Your task to perform on an android device: toggle show notifications on the lock screen Image 0: 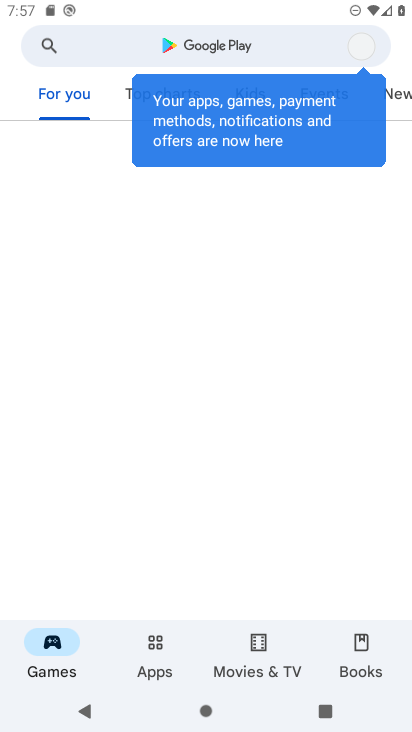
Step 0: press home button
Your task to perform on an android device: toggle show notifications on the lock screen Image 1: 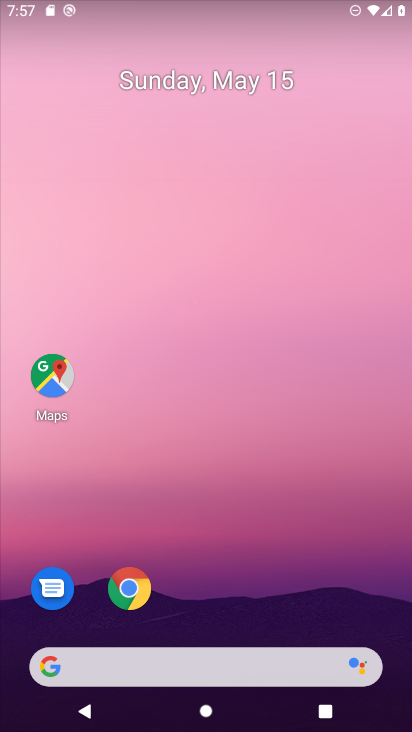
Step 1: drag from (205, 621) to (200, 12)
Your task to perform on an android device: toggle show notifications on the lock screen Image 2: 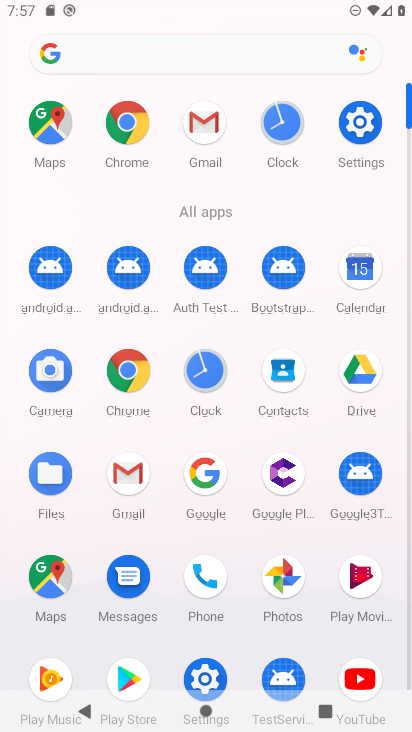
Step 2: click (363, 125)
Your task to perform on an android device: toggle show notifications on the lock screen Image 3: 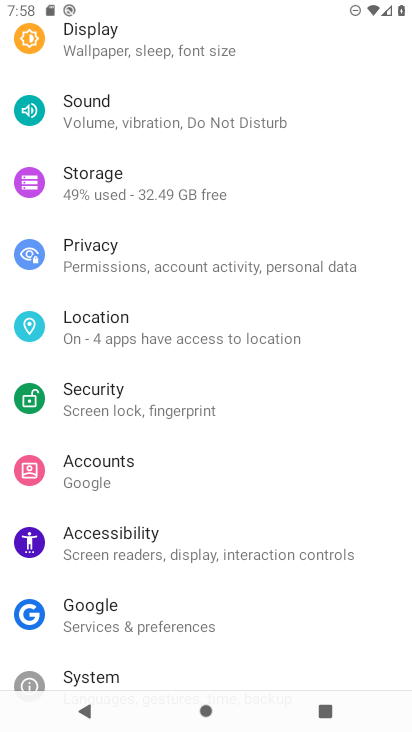
Step 3: drag from (136, 137) to (162, 647)
Your task to perform on an android device: toggle show notifications on the lock screen Image 4: 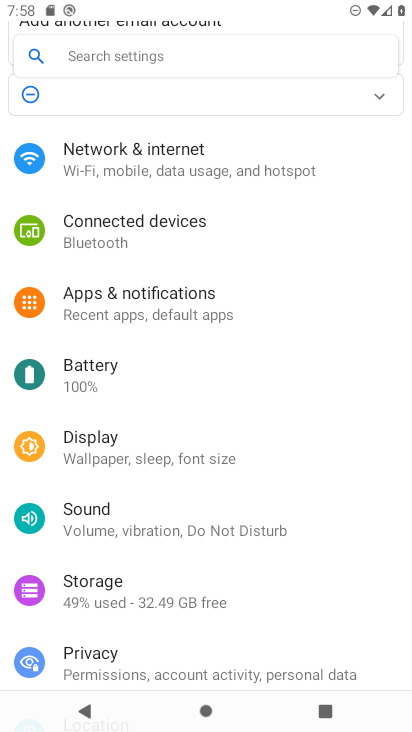
Step 4: click (210, 292)
Your task to perform on an android device: toggle show notifications on the lock screen Image 5: 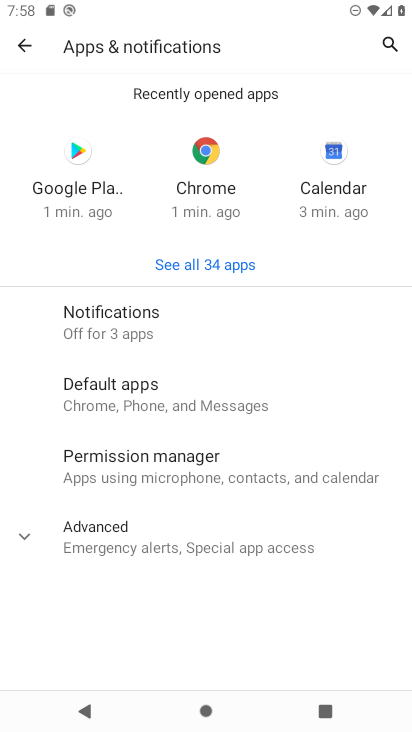
Step 5: click (18, 528)
Your task to perform on an android device: toggle show notifications on the lock screen Image 6: 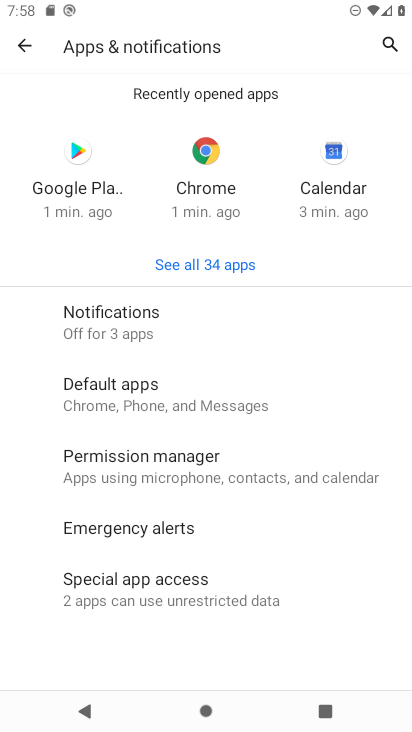
Step 6: click (108, 327)
Your task to perform on an android device: toggle show notifications on the lock screen Image 7: 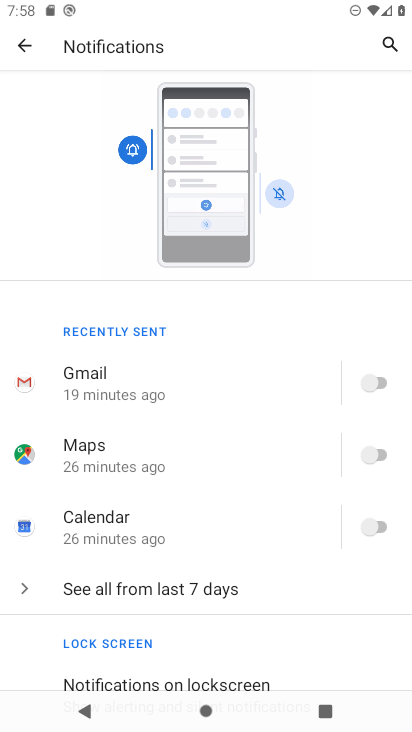
Step 7: click (206, 672)
Your task to perform on an android device: toggle show notifications on the lock screen Image 8: 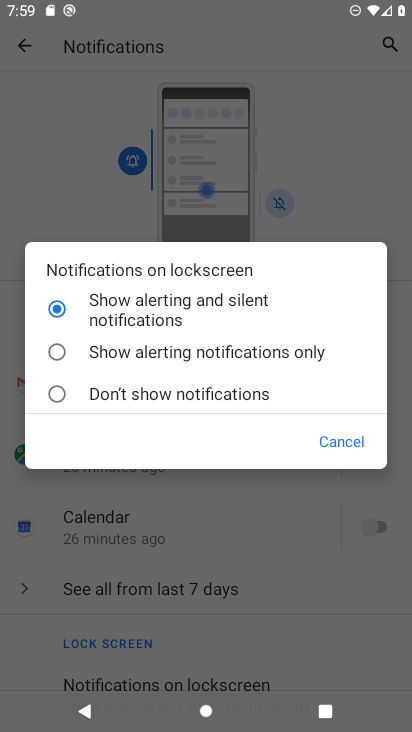
Step 8: click (64, 347)
Your task to perform on an android device: toggle show notifications on the lock screen Image 9: 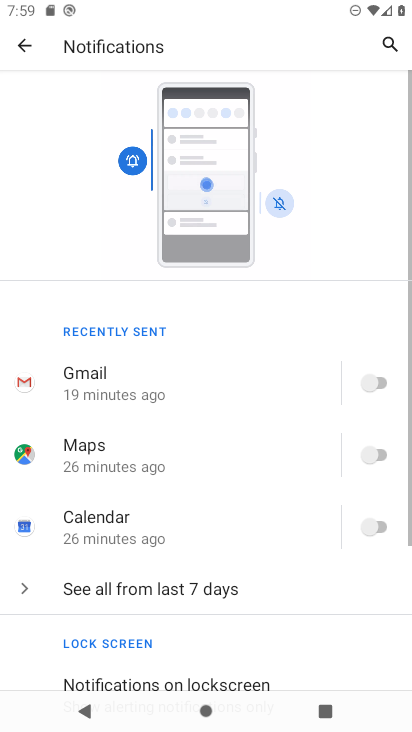
Step 9: task complete